Your task to perform on an android device: uninstall "Calculator" Image 0: 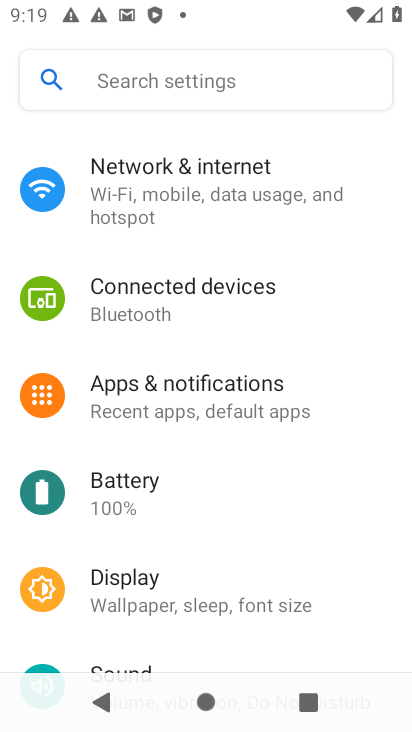
Step 0: press home button
Your task to perform on an android device: uninstall "Calculator" Image 1: 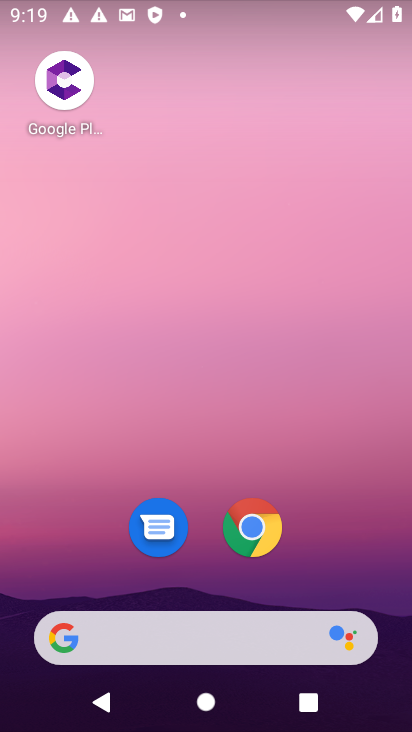
Step 1: drag from (202, 552) to (184, 1)
Your task to perform on an android device: uninstall "Calculator" Image 2: 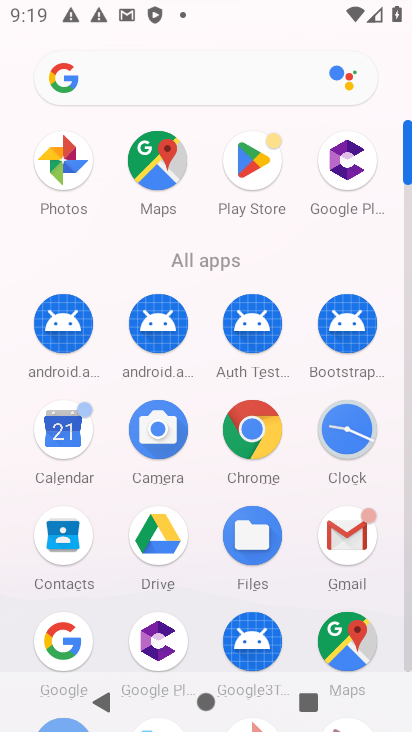
Step 2: click (255, 171)
Your task to perform on an android device: uninstall "Calculator" Image 3: 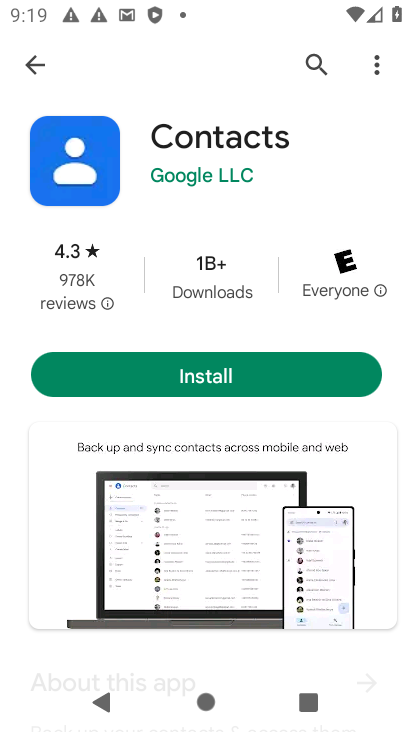
Step 3: click (31, 58)
Your task to perform on an android device: uninstall "Calculator" Image 4: 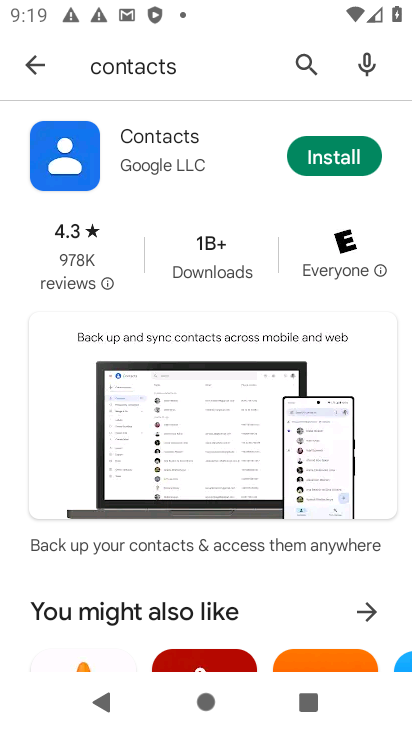
Step 4: click (189, 71)
Your task to perform on an android device: uninstall "Calculator" Image 5: 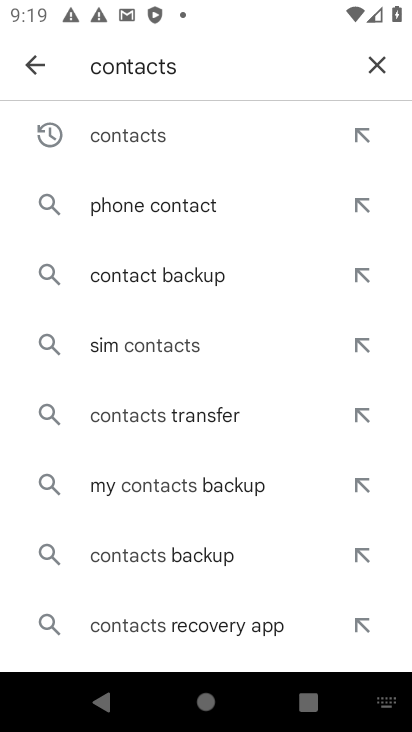
Step 5: click (375, 62)
Your task to perform on an android device: uninstall "Calculator" Image 6: 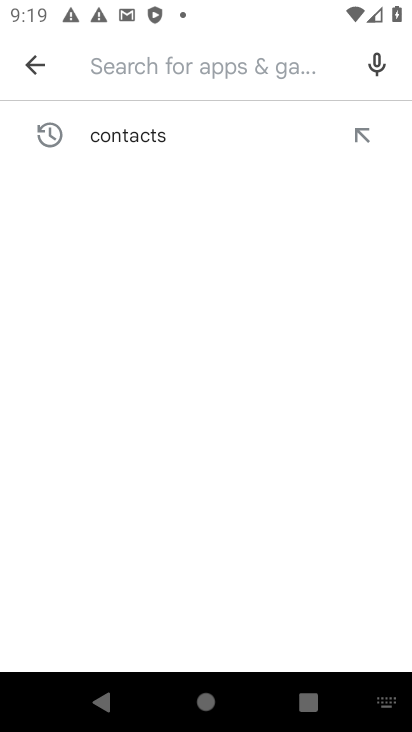
Step 6: type "calculator"
Your task to perform on an android device: uninstall "Calculator" Image 7: 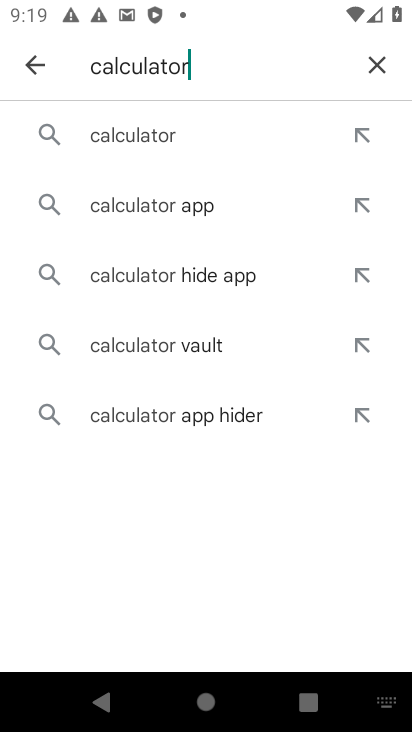
Step 7: click (151, 137)
Your task to perform on an android device: uninstall "Calculator" Image 8: 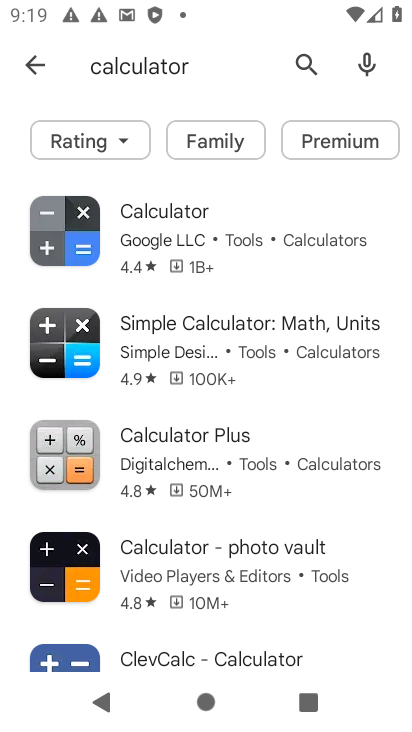
Step 8: click (178, 226)
Your task to perform on an android device: uninstall "Calculator" Image 9: 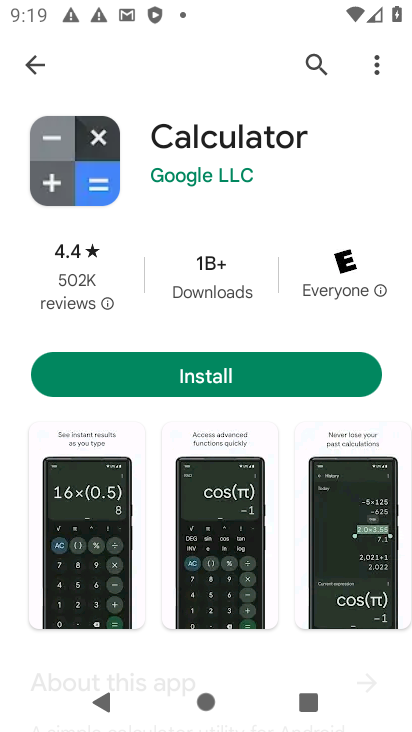
Step 9: task complete